Your task to perform on an android device: Is it going to rain this weekend? Image 0: 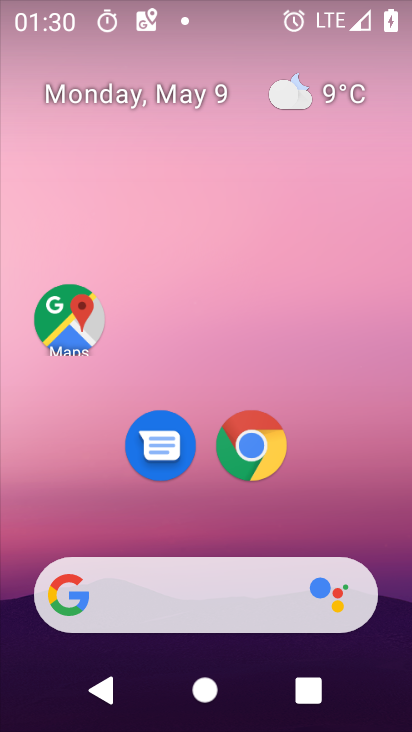
Step 0: click (333, 96)
Your task to perform on an android device: Is it going to rain this weekend? Image 1: 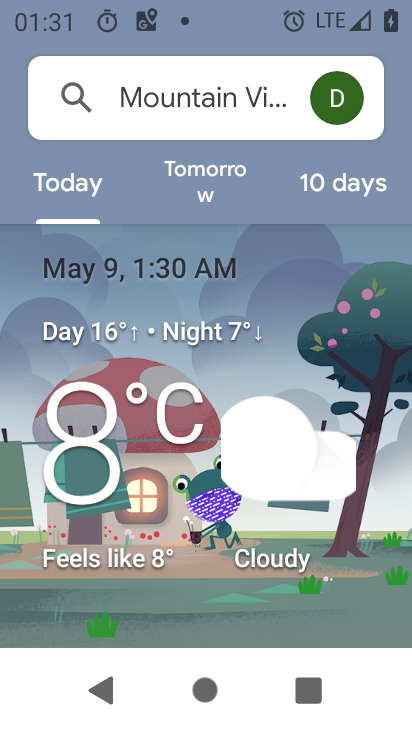
Step 1: click (341, 188)
Your task to perform on an android device: Is it going to rain this weekend? Image 2: 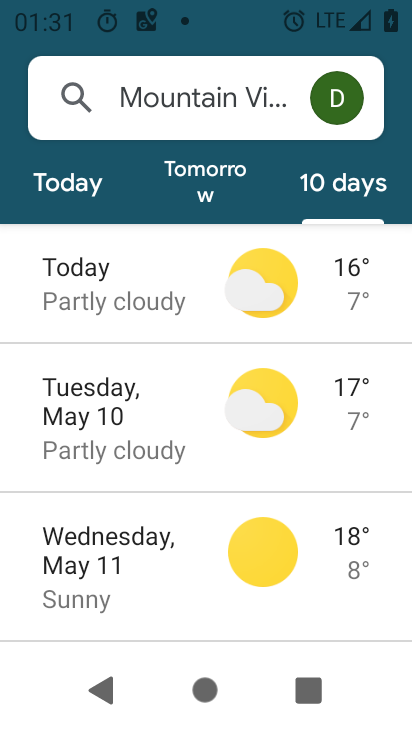
Step 2: task complete